Your task to perform on an android device: check battery use Image 0: 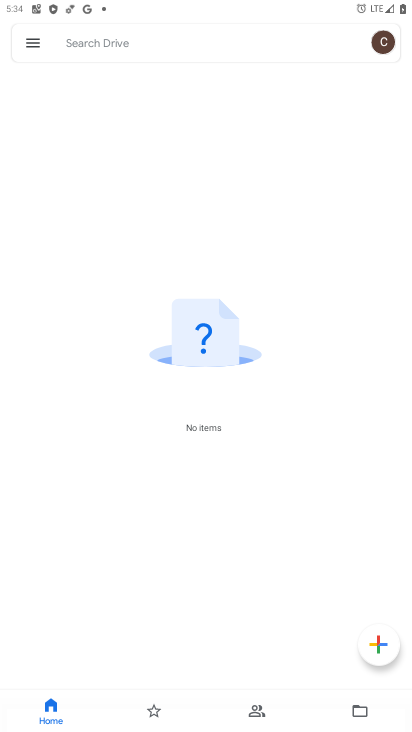
Step 0: press home button
Your task to perform on an android device: check battery use Image 1: 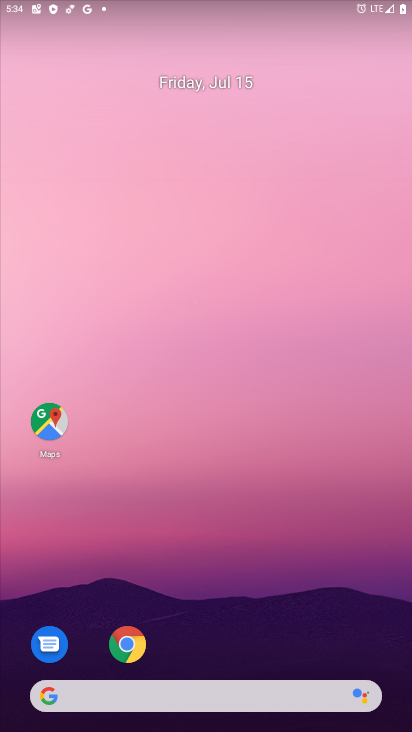
Step 1: drag from (193, 666) to (246, 97)
Your task to perform on an android device: check battery use Image 2: 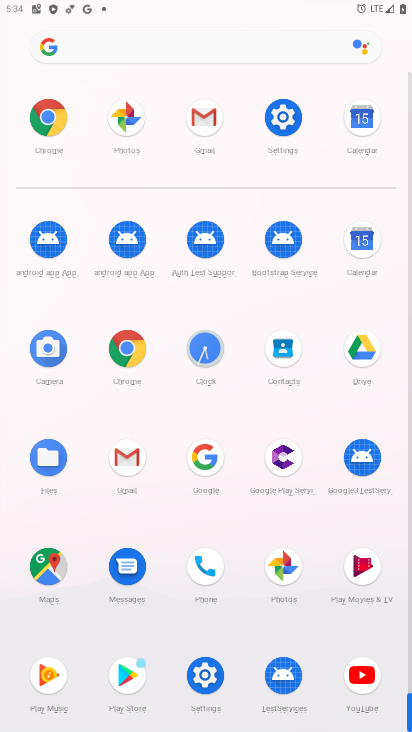
Step 2: click (300, 128)
Your task to perform on an android device: check battery use Image 3: 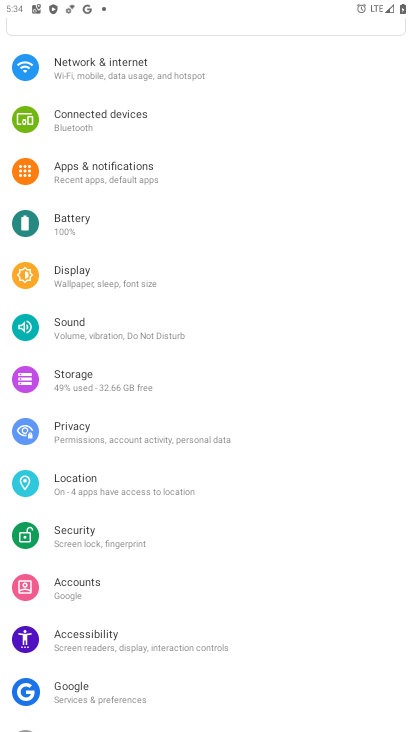
Step 3: click (74, 226)
Your task to perform on an android device: check battery use Image 4: 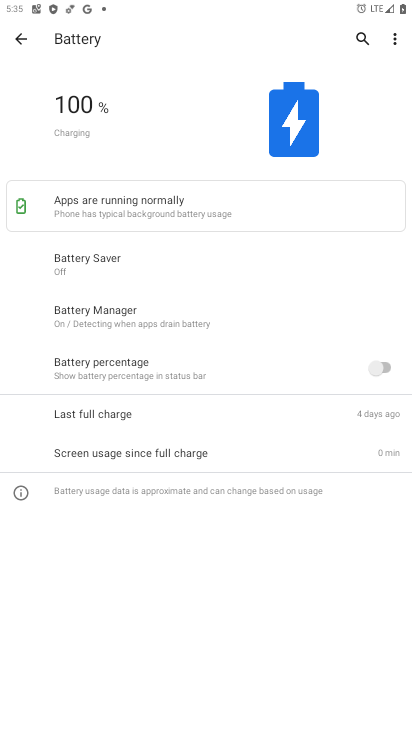
Step 4: task complete